Your task to perform on an android device: Show me recent news Image 0: 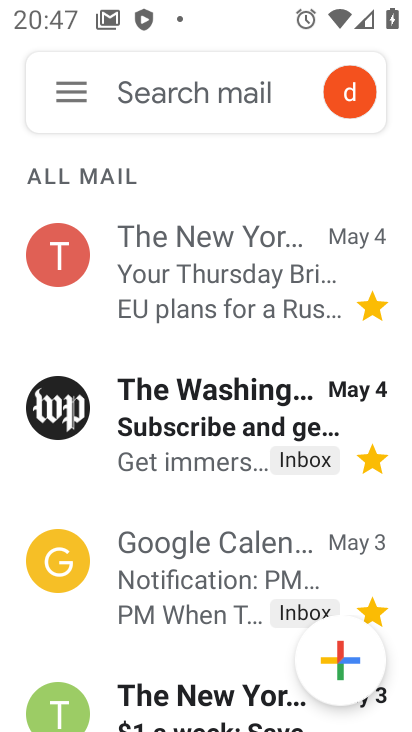
Step 0: press home button
Your task to perform on an android device: Show me recent news Image 1: 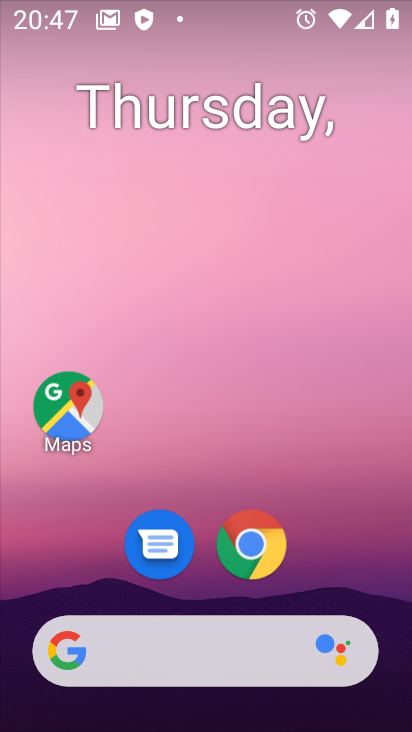
Step 1: click (196, 642)
Your task to perform on an android device: Show me recent news Image 2: 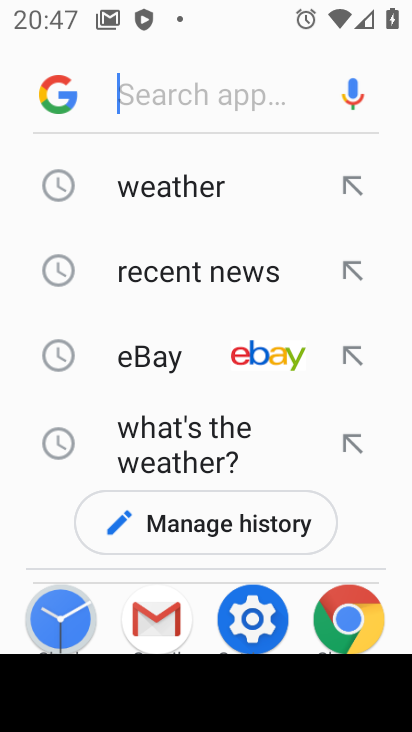
Step 2: click (54, 73)
Your task to perform on an android device: Show me recent news Image 3: 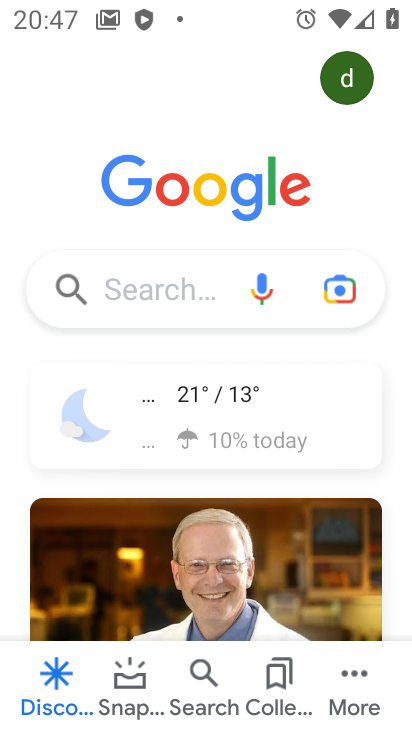
Step 3: task complete